Your task to perform on an android device: delete location history Image 0: 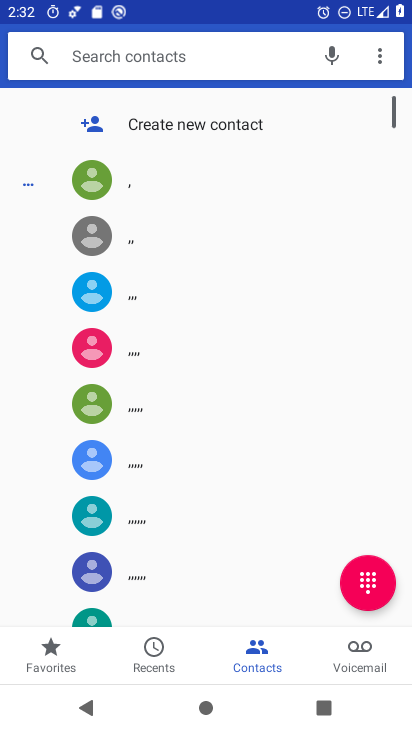
Step 0: press home button
Your task to perform on an android device: delete location history Image 1: 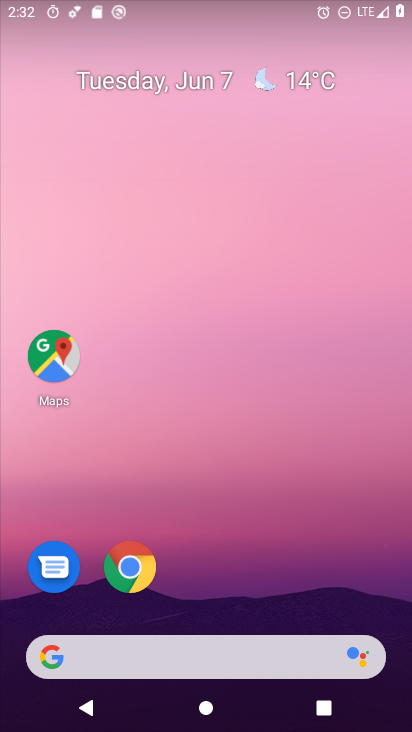
Step 1: drag from (279, 578) to (309, 15)
Your task to perform on an android device: delete location history Image 2: 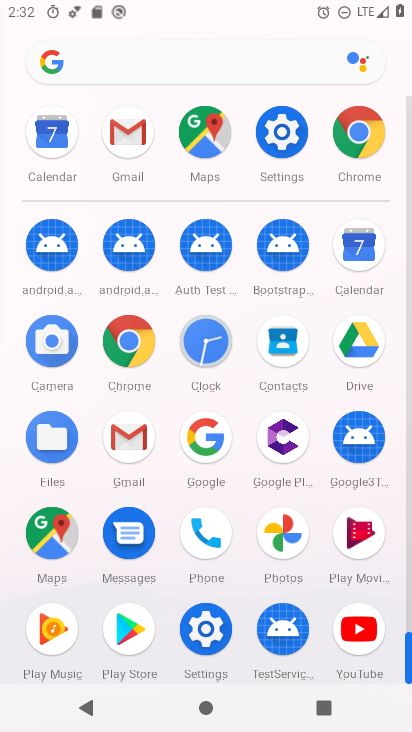
Step 2: click (184, 136)
Your task to perform on an android device: delete location history Image 3: 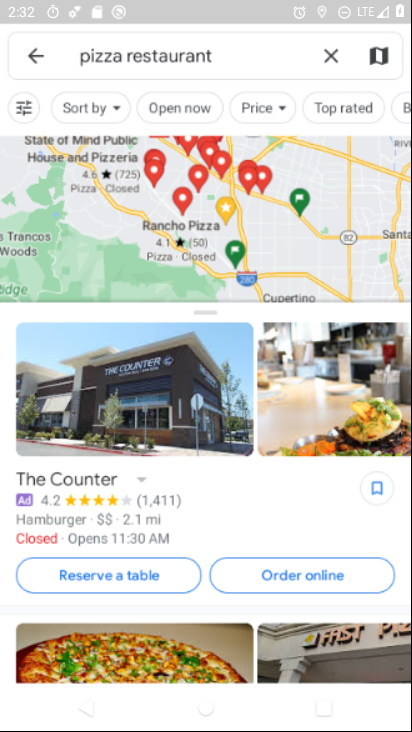
Step 3: click (50, 59)
Your task to perform on an android device: delete location history Image 4: 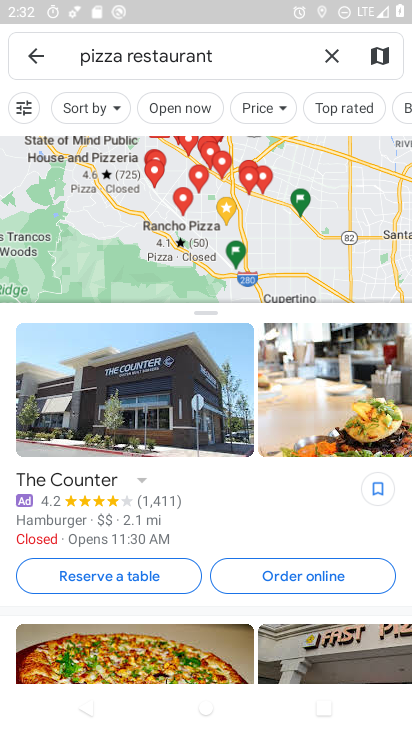
Step 4: click (37, 63)
Your task to perform on an android device: delete location history Image 5: 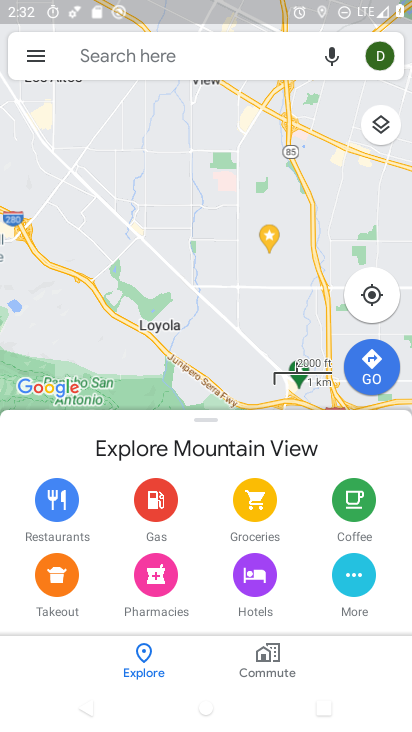
Step 5: click (35, 53)
Your task to perform on an android device: delete location history Image 6: 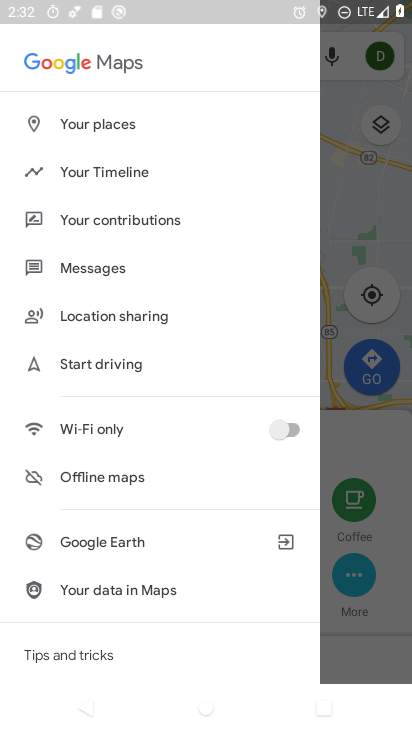
Step 6: drag from (101, 606) to (174, 102)
Your task to perform on an android device: delete location history Image 7: 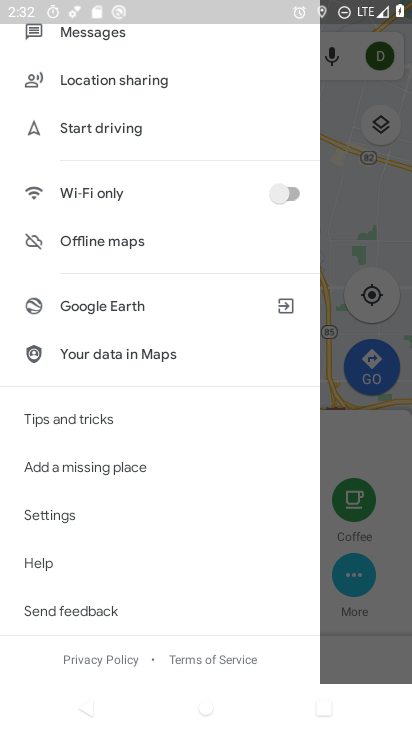
Step 7: click (80, 523)
Your task to perform on an android device: delete location history Image 8: 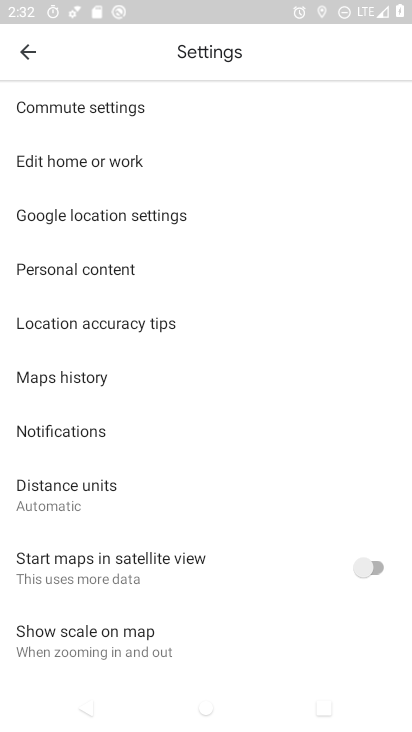
Step 8: drag from (139, 613) to (179, 211)
Your task to perform on an android device: delete location history Image 9: 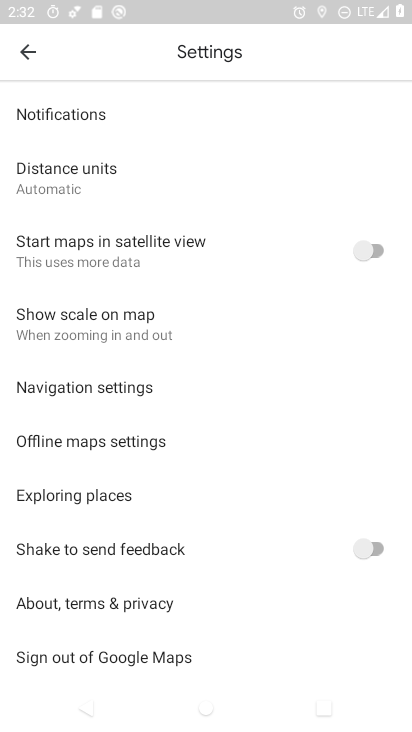
Step 9: drag from (178, 621) to (187, 201)
Your task to perform on an android device: delete location history Image 10: 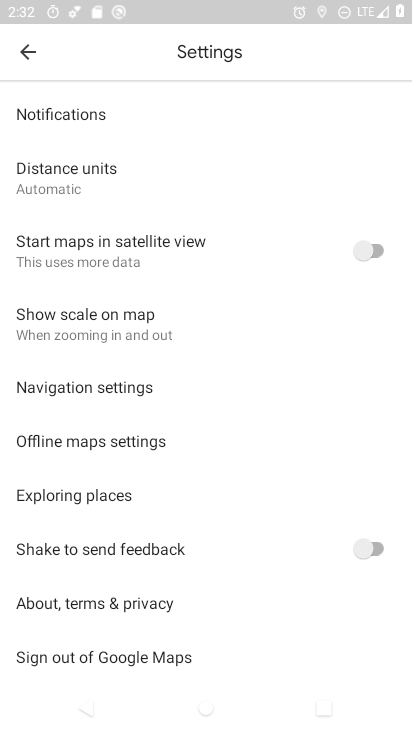
Step 10: drag from (162, 377) to (179, 683)
Your task to perform on an android device: delete location history Image 11: 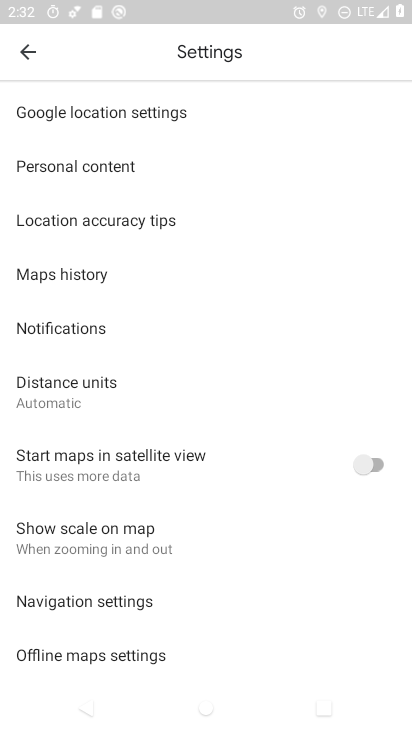
Step 11: drag from (160, 154) to (157, 655)
Your task to perform on an android device: delete location history Image 12: 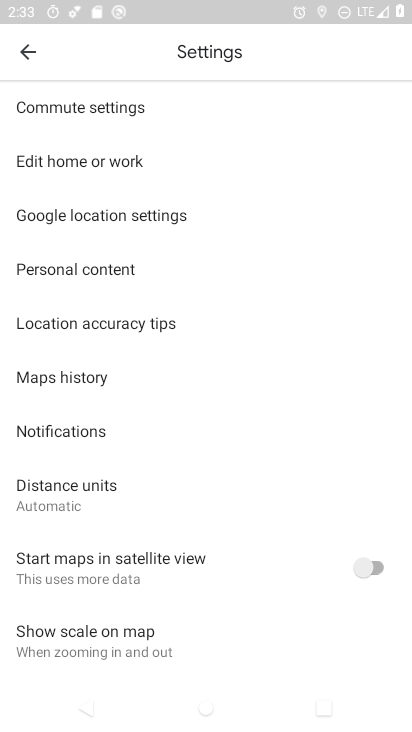
Step 12: drag from (157, 654) to (223, 114)
Your task to perform on an android device: delete location history Image 13: 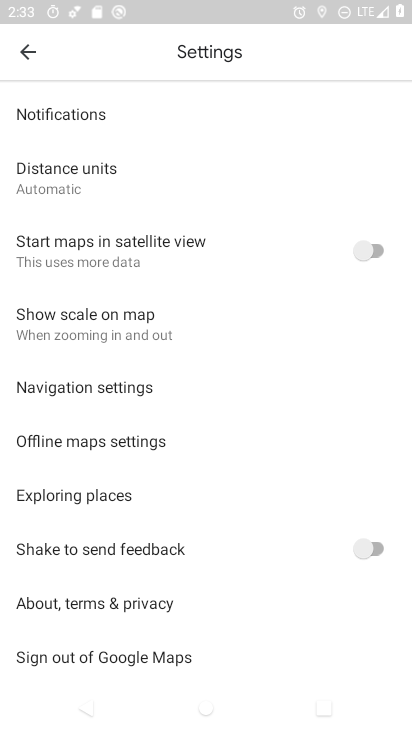
Step 13: drag from (173, 597) to (259, 80)
Your task to perform on an android device: delete location history Image 14: 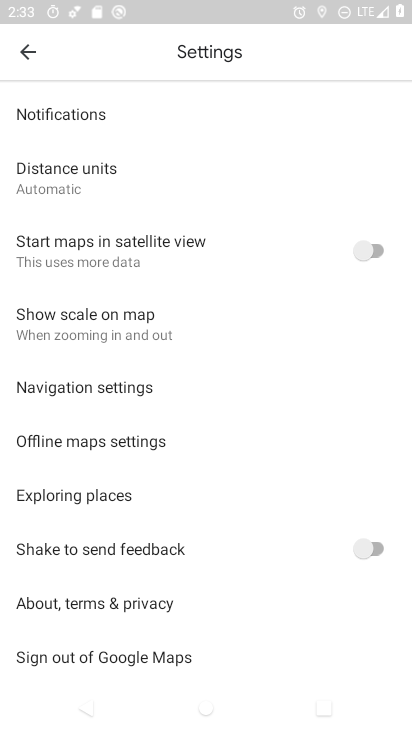
Step 14: drag from (196, 330) to (207, 712)
Your task to perform on an android device: delete location history Image 15: 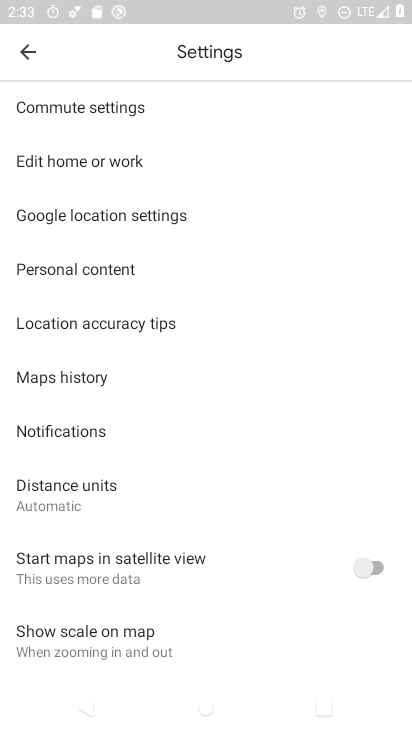
Step 15: click (34, 58)
Your task to perform on an android device: delete location history Image 16: 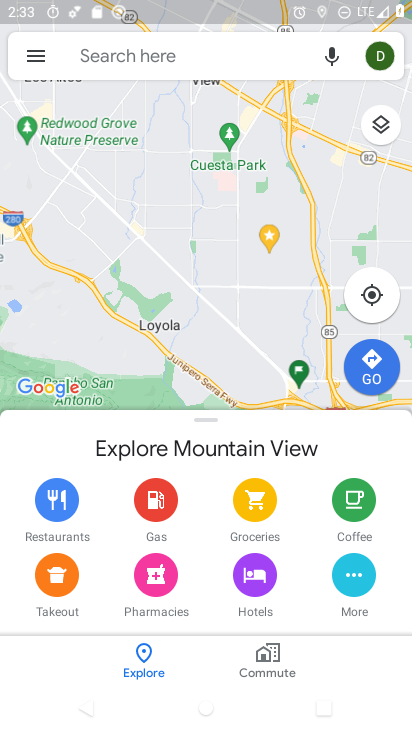
Step 16: click (53, 59)
Your task to perform on an android device: delete location history Image 17: 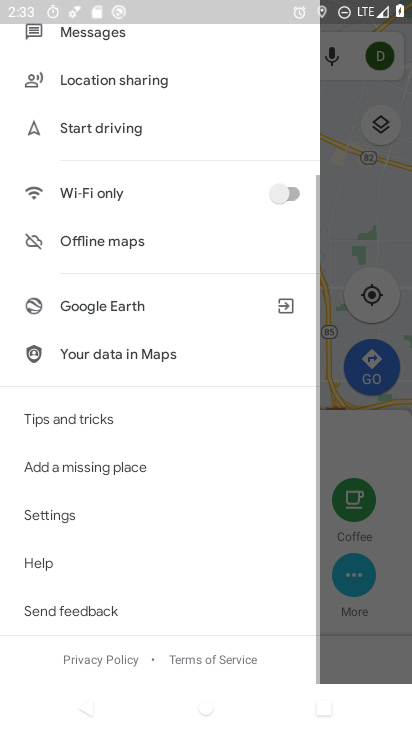
Step 17: drag from (108, 165) to (141, 660)
Your task to perform on an android device: delete location history Image 18: 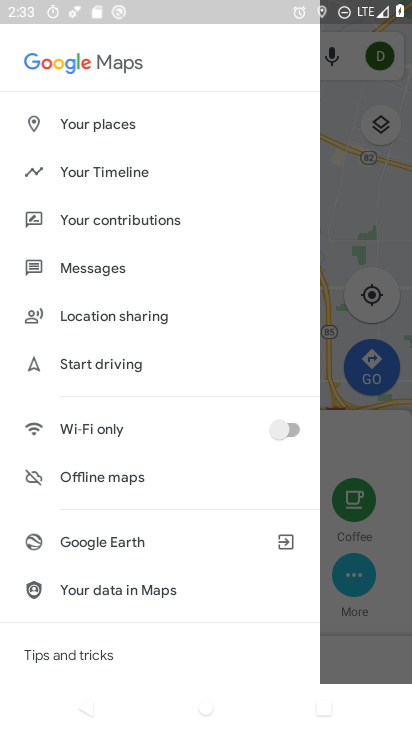
Step 18: click (127, 156)
Your task to perform on an android device: delete location history Image 19: 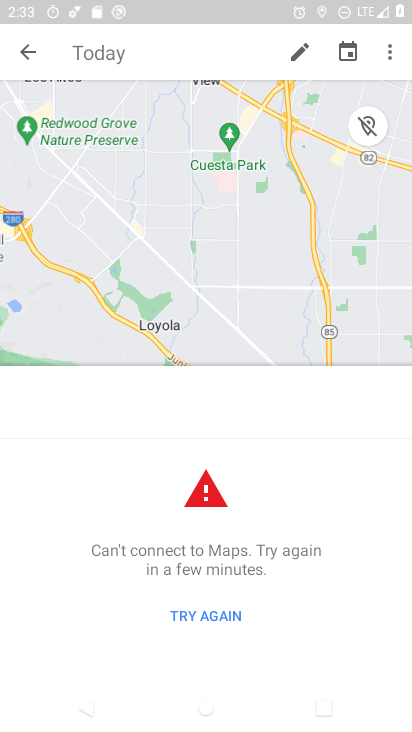
Step 19: click (388, 54)
Your task to perform on an android device: delete location history Image 20: 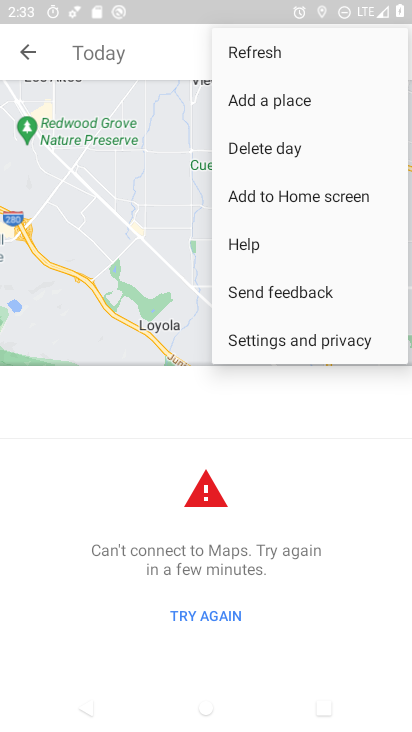
Step 20: click (290, 336)
Your task to perform on an android device: delete location history Image 21: 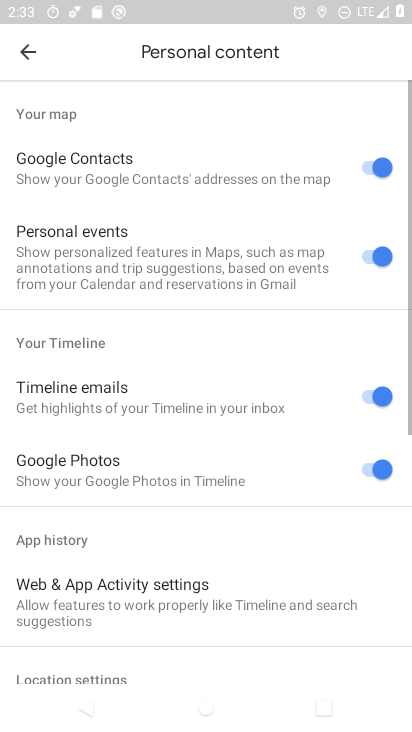
Step 21: drag from (151, 590) to (257, 61)
Your task to perform on an android device: delete location history Image 22: 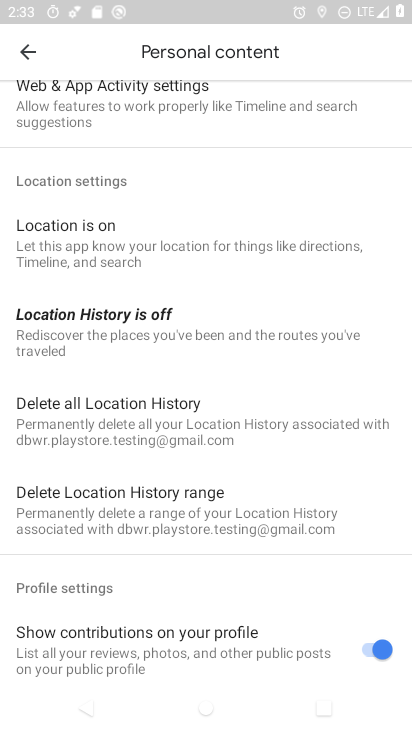
Step 22: click (166, 424)
Your task to perform on an android device: delete location history Image 23: 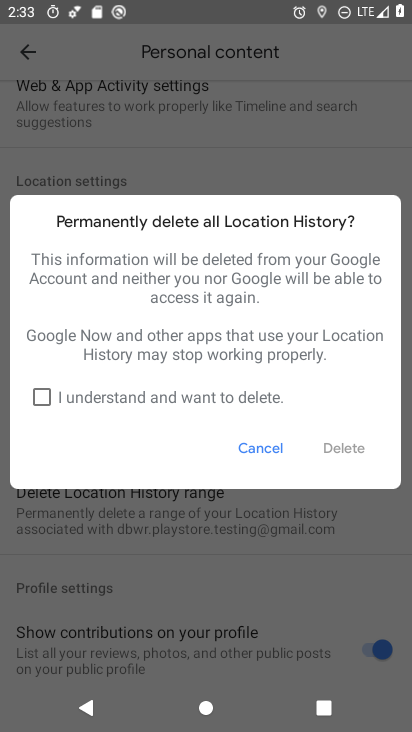
Step 23: click (46, 407)
Your task to perform on an android device: delete location history Image 24: 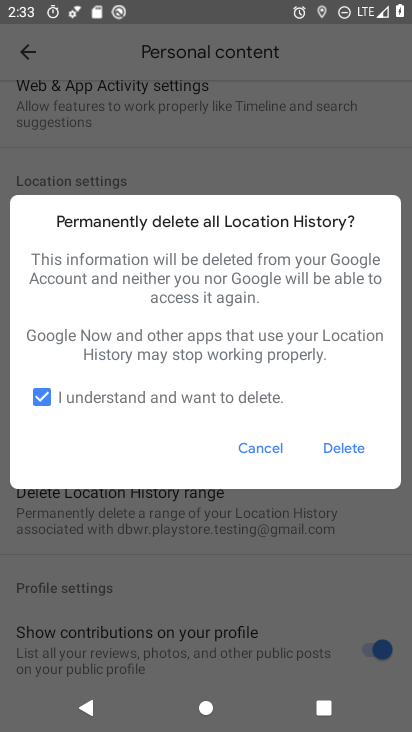
Step 24: click (353, 459)
Your task to perform on an android device: delete location history Image 25: 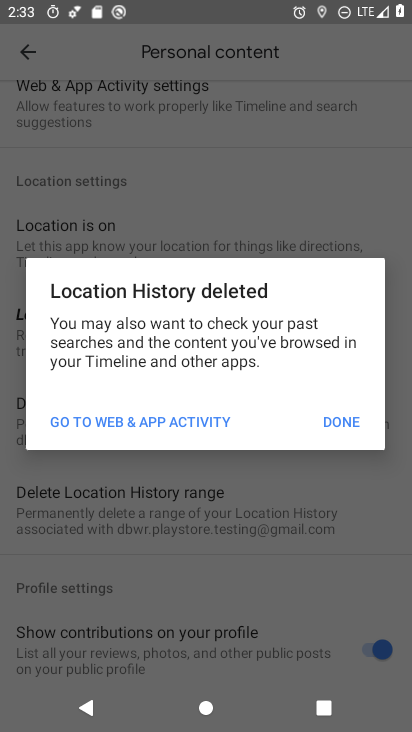
Step 25: task complete